Your task to perform on an android device: turn on sleep mode Image 0: 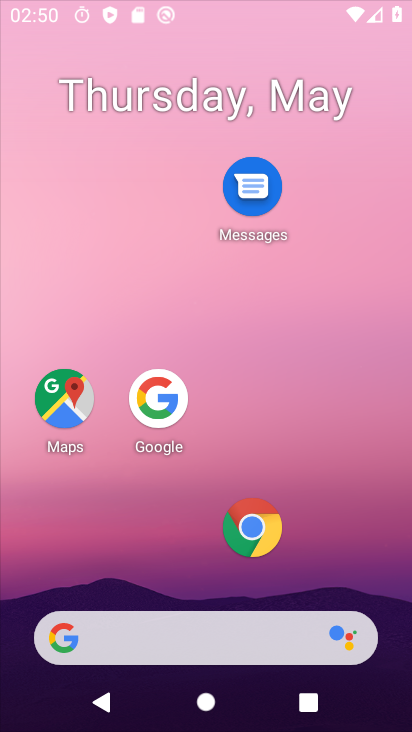
Step 0: click (192, 123)
Your task to perform on an android device: turn on sleep mode Image 1: 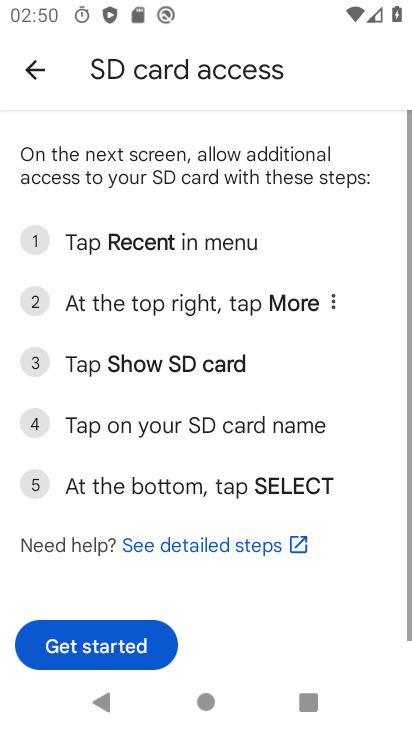
Step 1: drag from (207, 564) to (301, 194)
Your task to perform on an android device: turn on sleep mode Image 2: 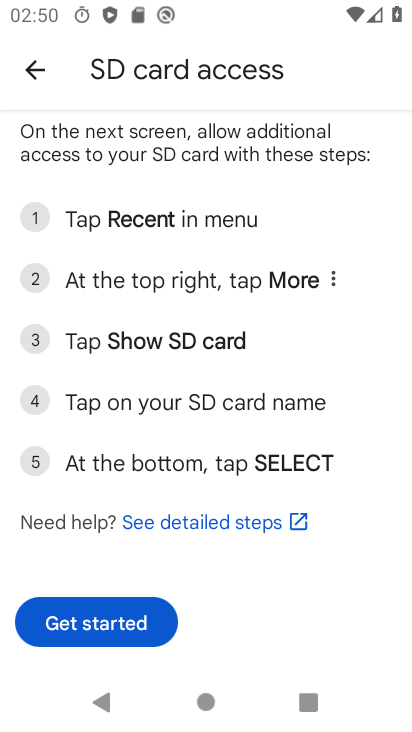
Step 2: drag from (245, 581) to (365, 146)
Your task to perform on an android device: turn on sleep mode Image 3: 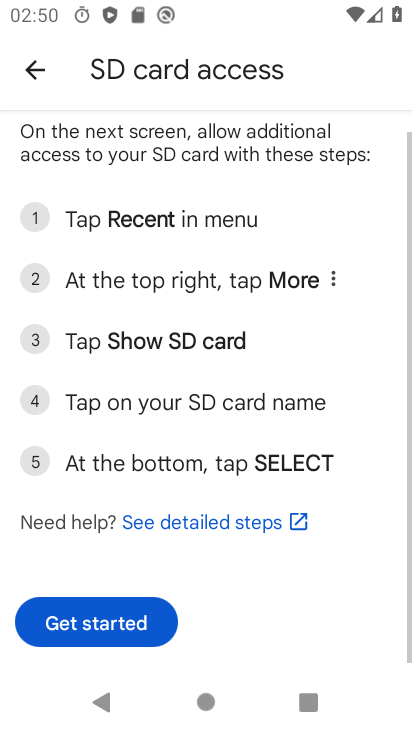
Step 3: press back button
Your task to perform on an android device: turn on sleep mode Image 4: 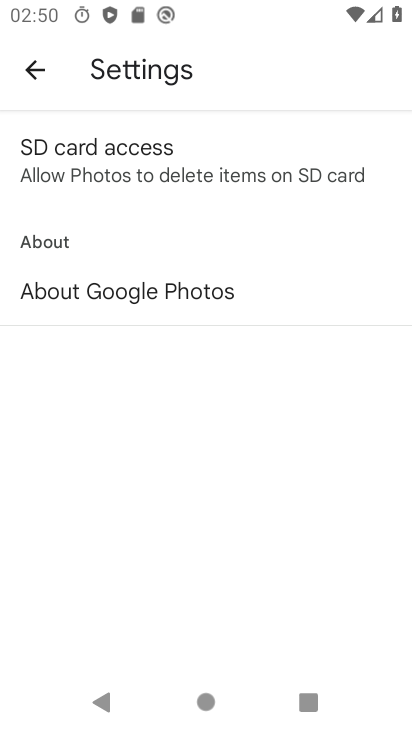
Step 4: drag from (219, 516) to (292, 176)
Your task to perform on an android device: turn on sleep mode Image 5: 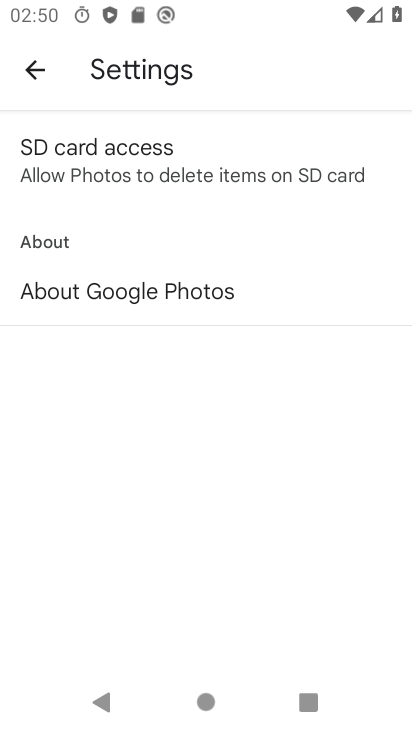
Step 5: press home button
Your task to perform on an android device: turn on sleep mode Image 6: 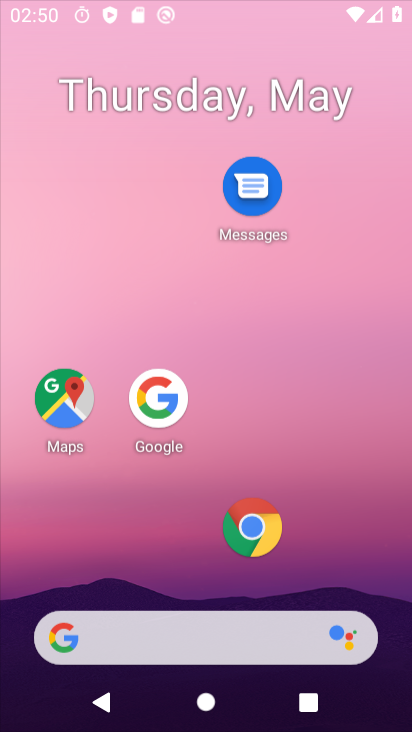
Step 6: drag from (253, 414) to (408, 46)
Your task to perform on an android device: turn on sleep mode Image 7: 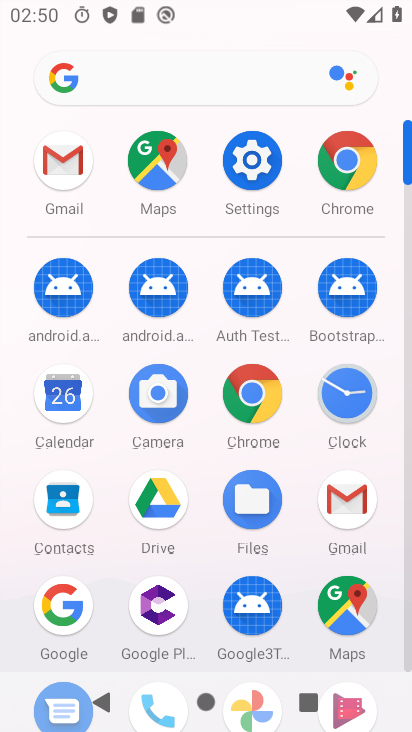
Step 7: drag from (208, 608) to (199, 315)
Your task to perform on an android device: turn on sleep mode Image 8: 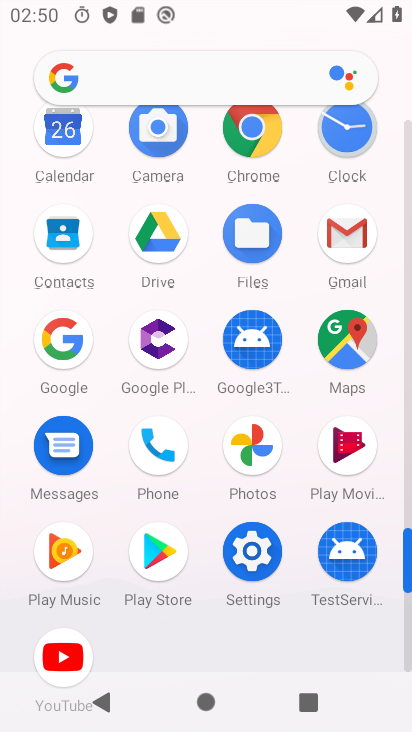
Step 8: click (244, 548)
Your task to perform on an android device: turn on sleep mode Image 9: 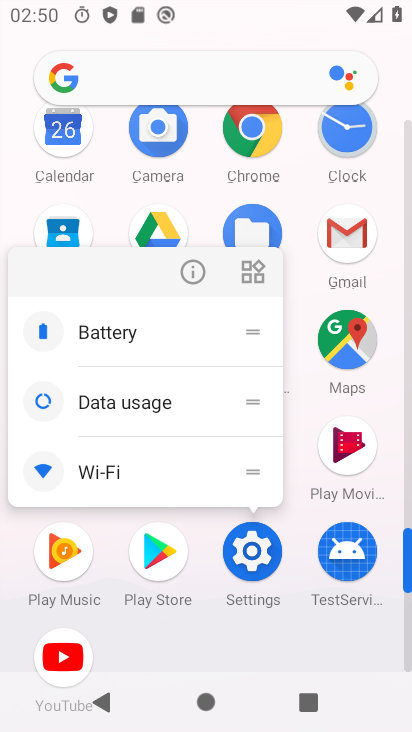
Step 9: click (185, 283)
Your task to perform on an android device: turn on sleep mode Image 10: 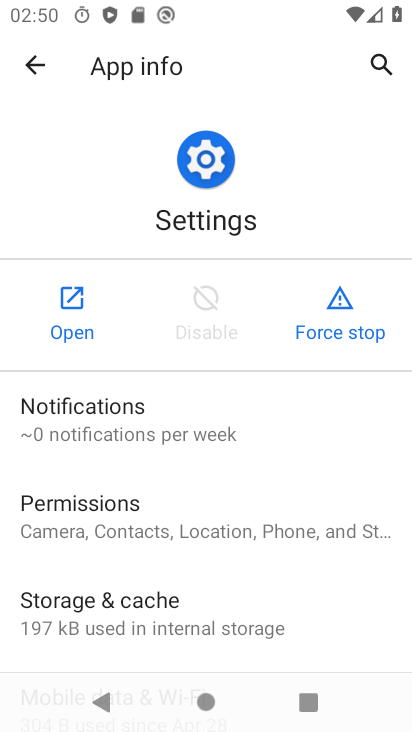
Step 10: click (70, 294)
Your task to perform on an android device: turn on sleep mode Image 11: 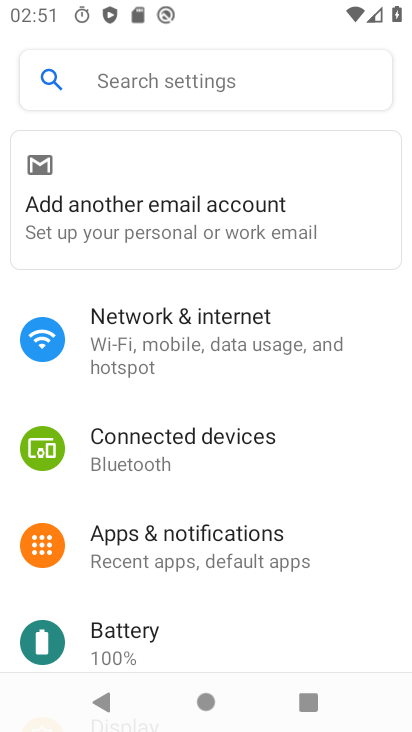
Step 11: drag from (200, 517) to (236, 192)
Your task to perform on an android device: turn on sleep mode Image 12: 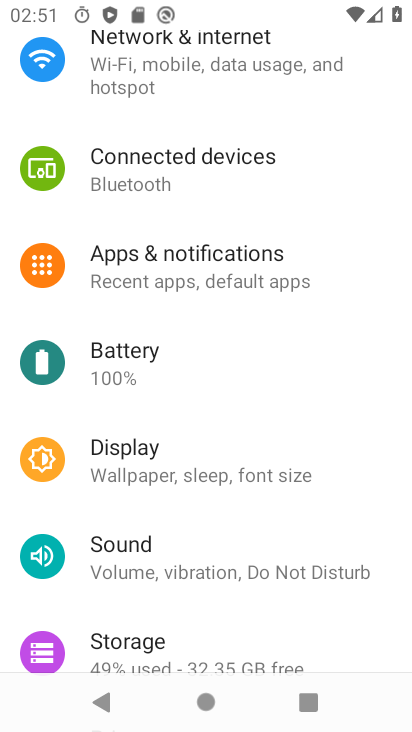
Step 12: click (175, 473)
Your task to perform on an android device: turn on sleep mode Image 13: 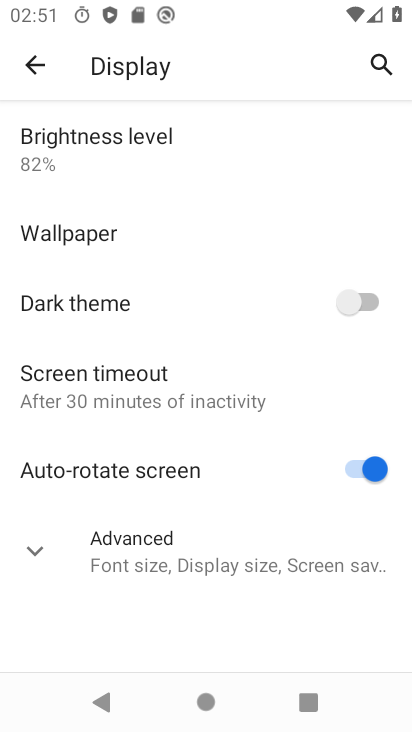
Step 13: click (191, 402)
Your task to perform on an android device: turn on sleep mode Image 14: 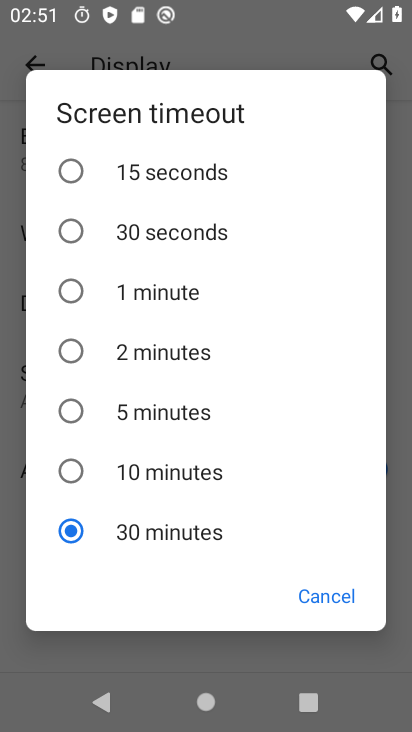
Step 14: task complete